Your task to perform on an android device: Open the map Image 0: 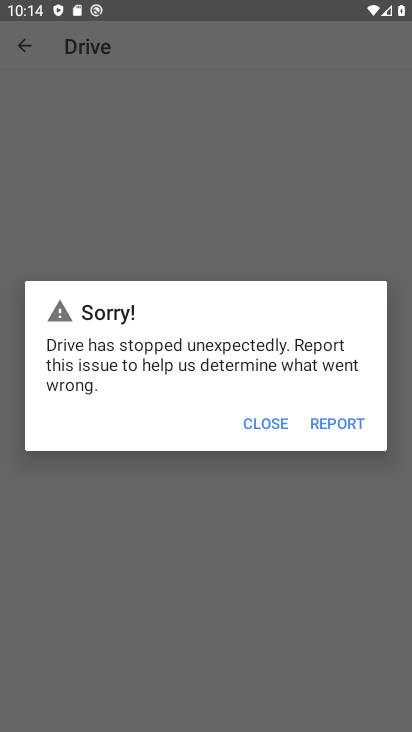
Step 0: press home button
Your task to perform on an android device: Open the map Image 1: 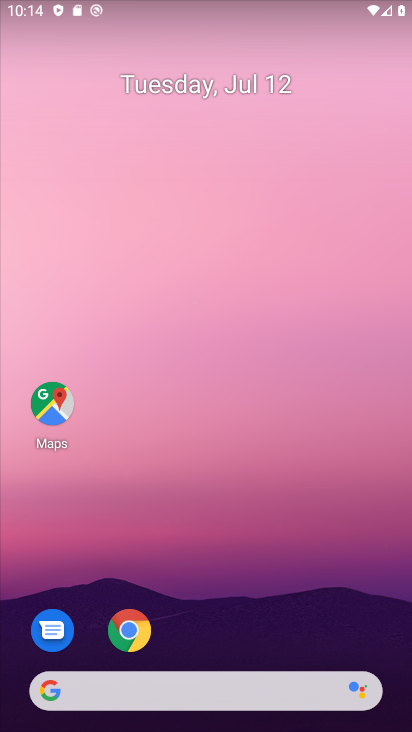
Step 1: drag from (349, 594) to (330, 165)
Your task to perform on an android device: Open the map Image 2: 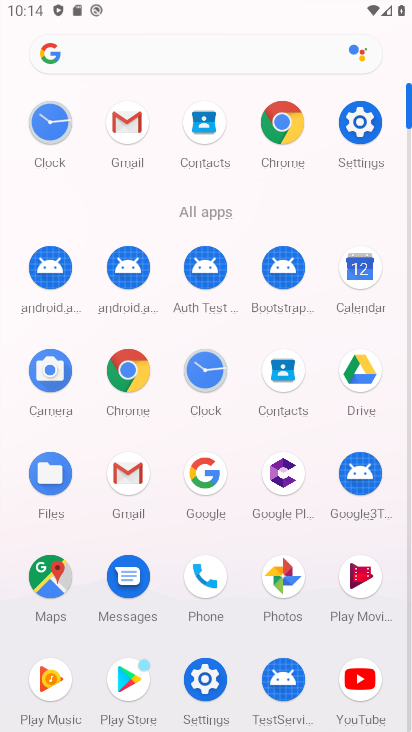
Step 2: click (48, 577)
Your task to perform on an android device: Open the map Image 3: 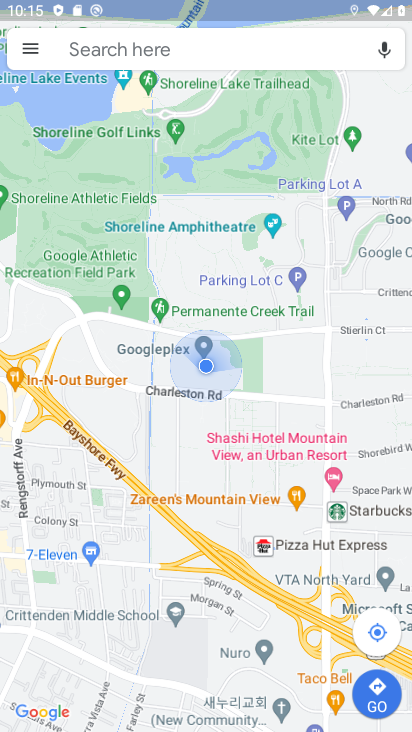
Step 3: task complete